Your task to perform on an android device: change notifications settings Image 0: 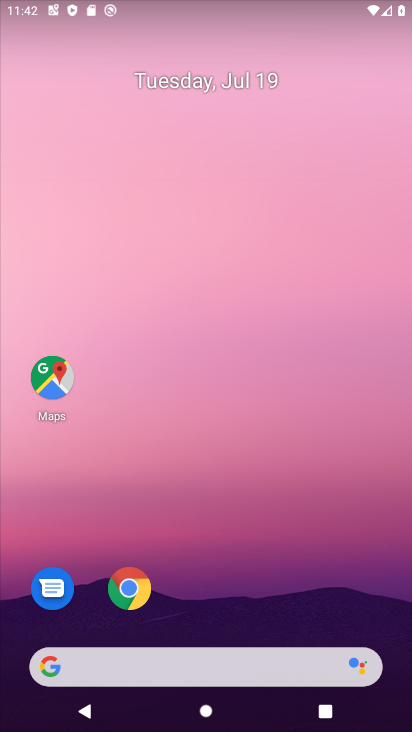
Step 0: drag from (236, 632) to (251, 62)
Your task to perform on an android device: change notifications settings Image 1: 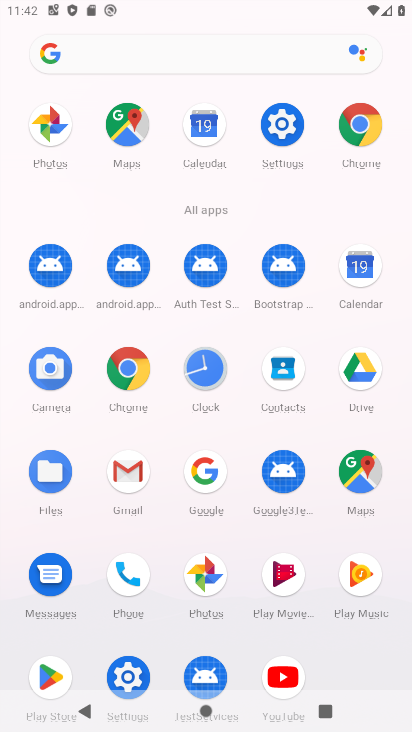
Step 1: click (278, 140)
Your task to perform on an android device: change notifications settings Image 2: 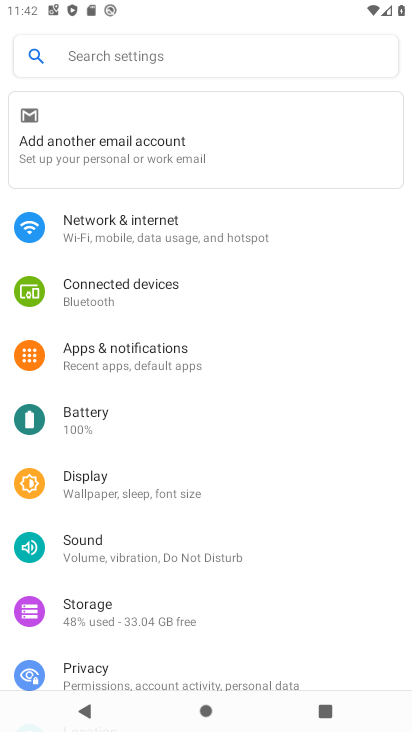
Step 2: click (118, 362)
Your task to perform on an android device: change notifications settings Image 3: 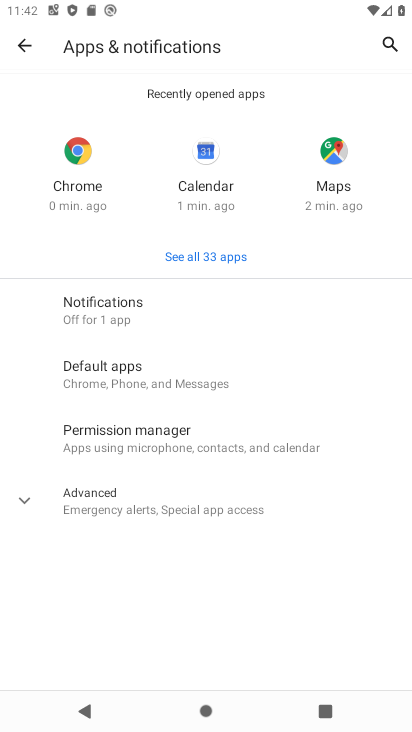
Step 3: click (122, 310)
Your task to perform on an android device: change notifications settings Image 4: 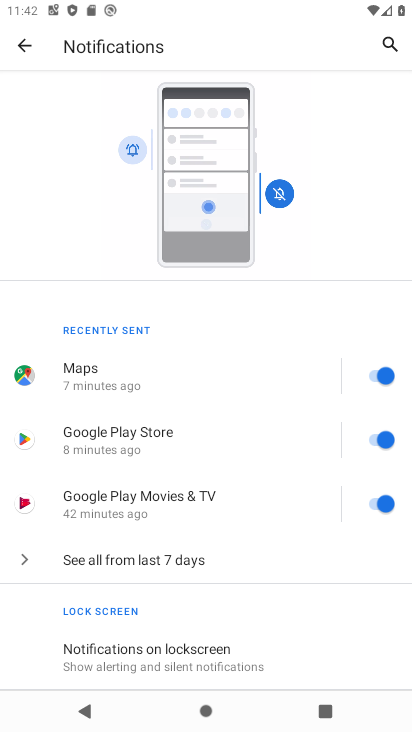
Step 4: click (95, 558)
Your task to perform on an android device: change notifications settings Image 5: 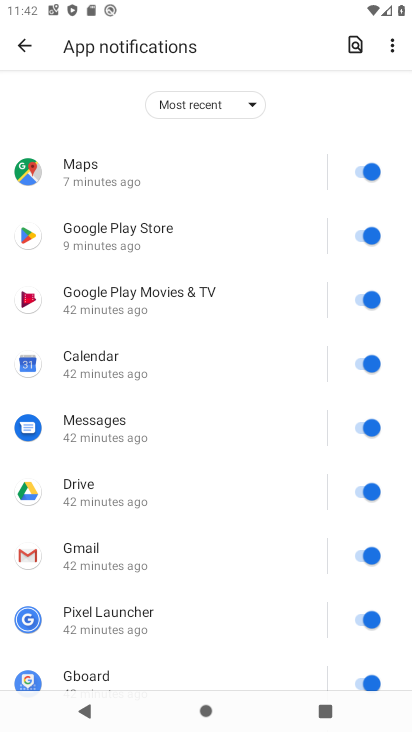
Step 5: click (359, 170)
Your task to perform on an android device: change notifications settings Image 6: 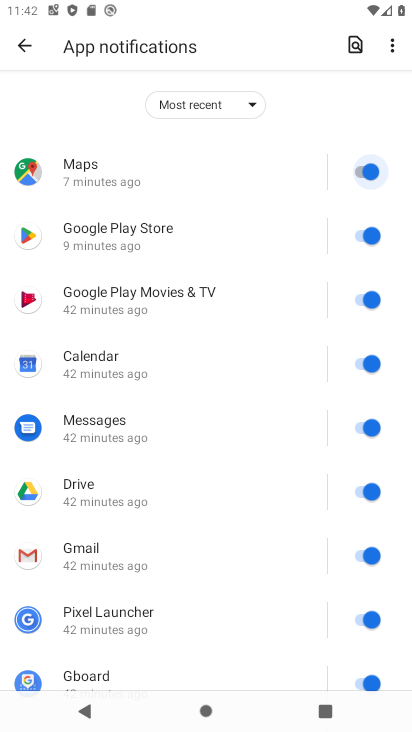
Step 6: click (351, 249)
Your task to perform on an android device: change notifications settings Image 7: 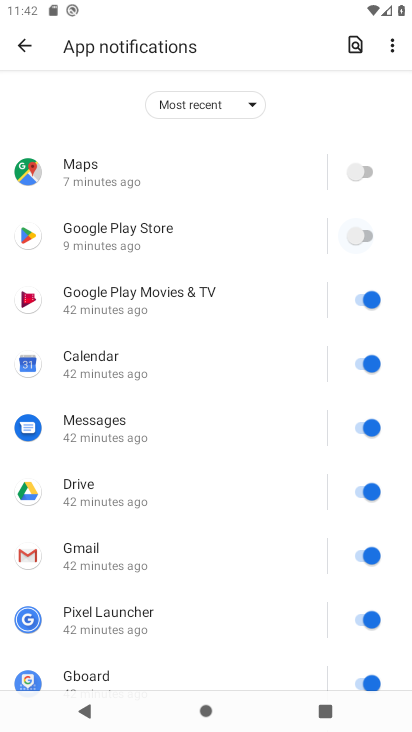
Step 7: click (349, 312)
Your task to perform on an android device: change notifications settings Image 8: 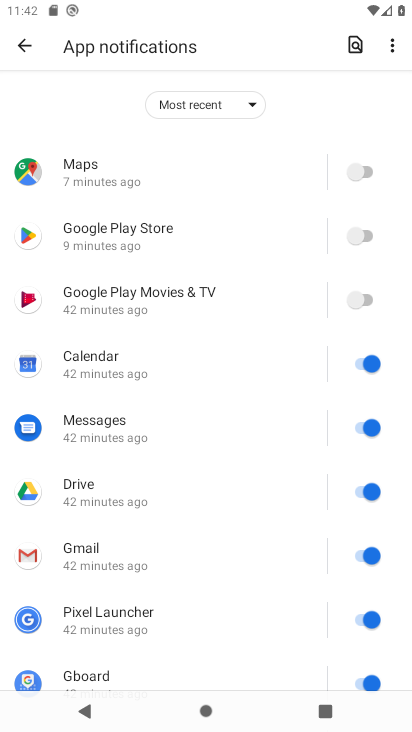
Step 8: click (345, 366)
Your task to perform on an android device: change notifications settings Image 9: 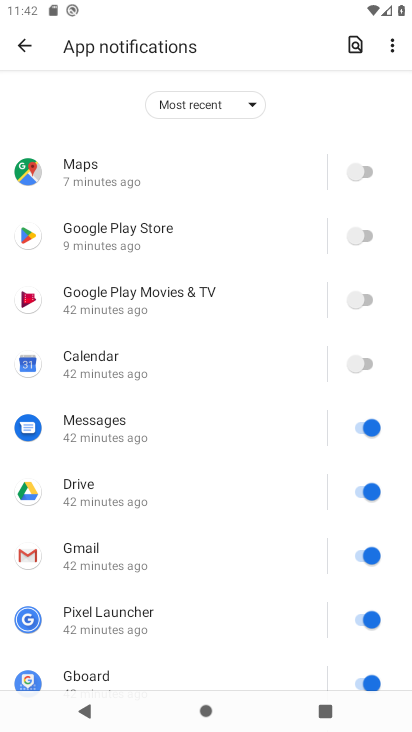
Step 9: click (349, 433)
Your task to perform on an android device: change notifications settings Image 10: 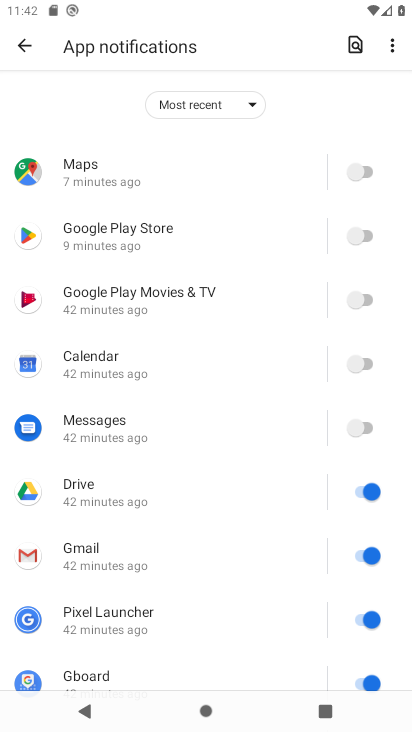
Step 10: click (350, 491)
Your task to perform on an android device: change notifications settings Image 11: 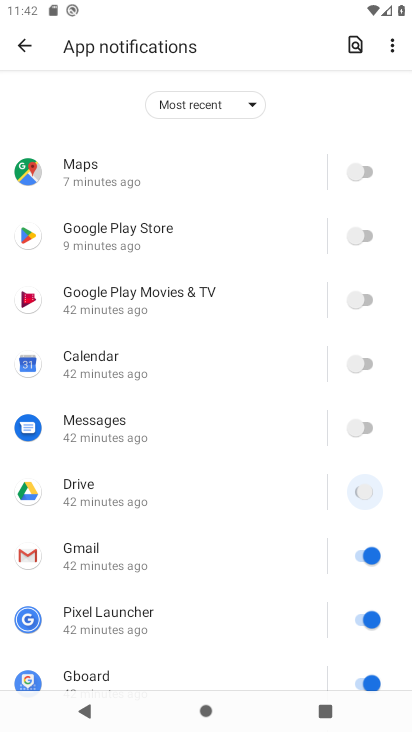
Step 11: click (343, 565)
Your task to perform on an android device: change notifications settings Image 12: 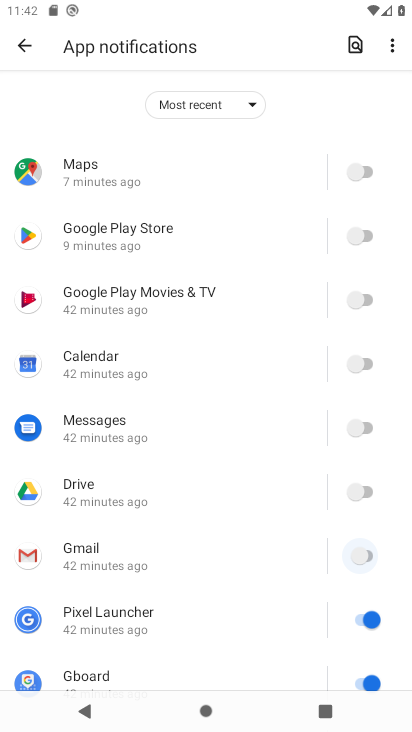
Step 12: click (335, 626)
Your task to perform on an android device: change notifications settings Image 13: 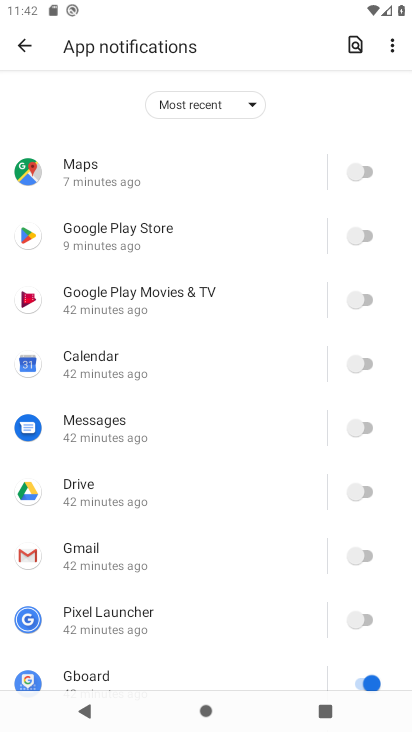
Step 13: click (332, 670)
Your task to perform on an android device: change notifications settings Image 14: 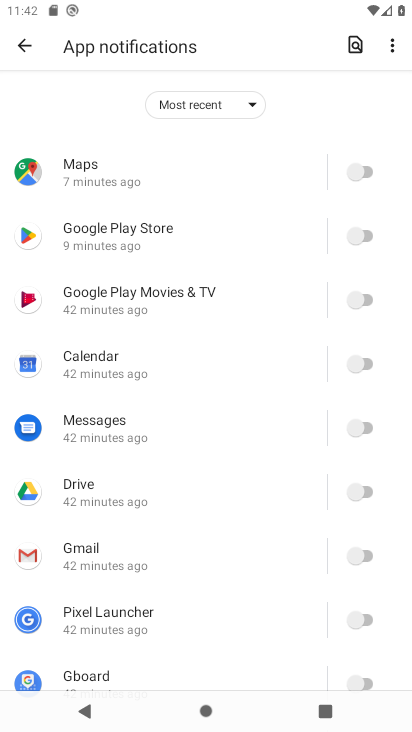
Step 14: drag from (279, 677) to (316, 180)
Your task to perform on an android device: change notifications settings Image 15: 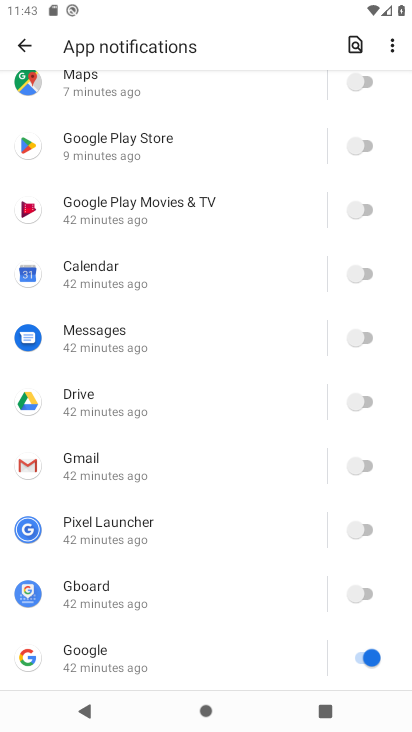
Step 15: click (344, 664)
Your task to perform on an android device: change notifications settings Image 16: 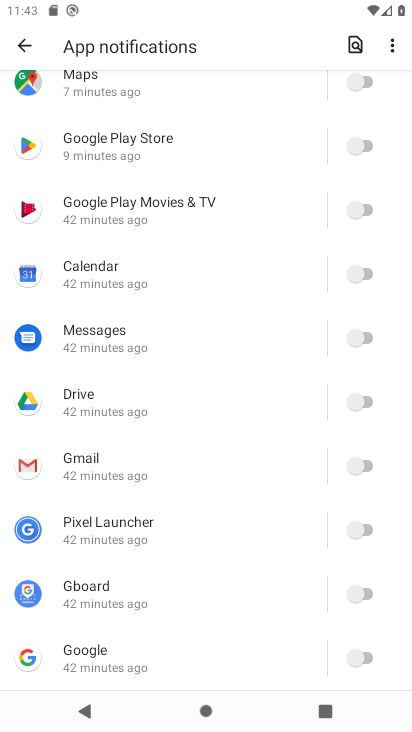
Step 16: task complete